Your task to perform on an android device: turn on wifi Image 0: 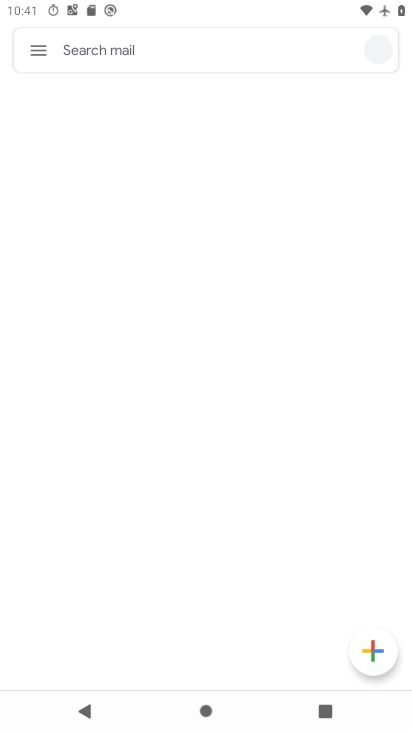
Step 0: press home button
Your task to perform on an android device: turn on wifi Image 1: 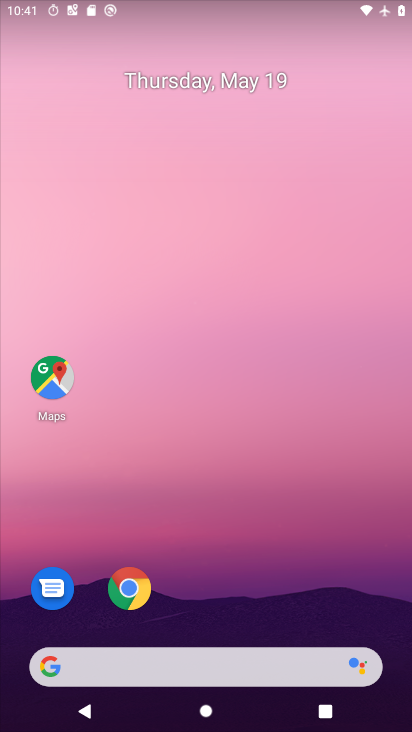
Step 1: drag from (180, 664) to (292, 129)
Your task to perform on an android device: turn on wifi Image 2: 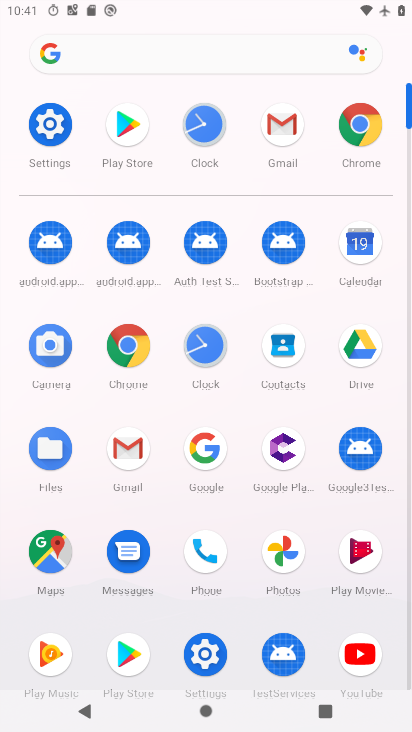
Step 2: click (48, 125)
Your task to perform on an android device: turn on wifi Image 3: 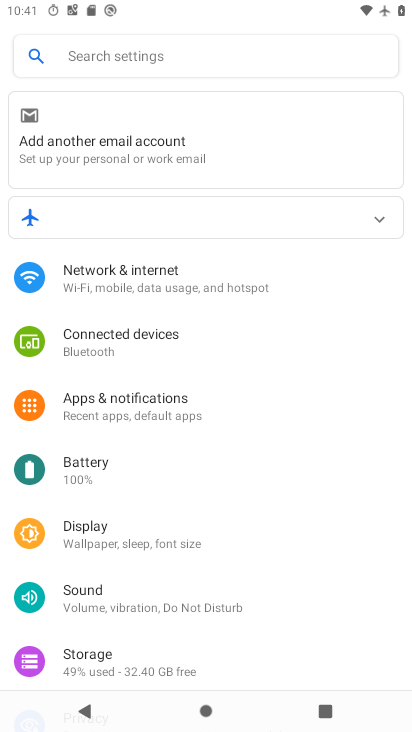
Step 3: click (137, 286)
Your task to perform on an android device: turn on wifi Image 4: 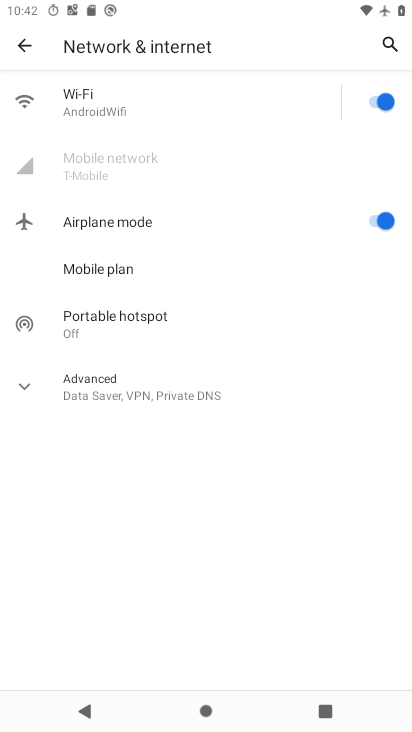
Step 4: task complete